Your task to perform on an android device: Open Youtube and go to "Your channel" Image 0: 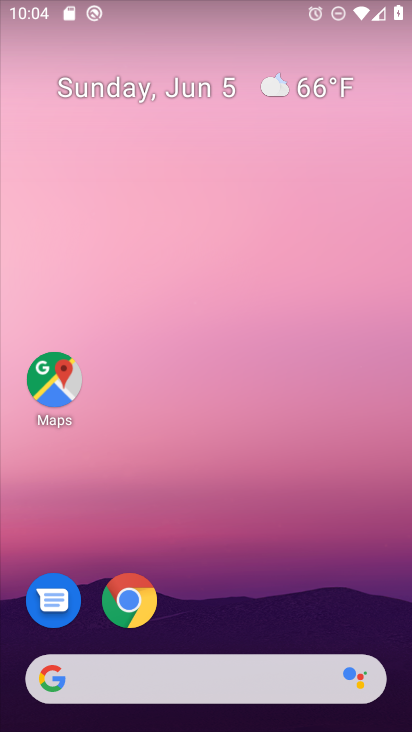
Step 0: drag from (388, 625) to (261, 2)
Your task to perform on an android device: Open Youtube and go to "Your channel" Image 1: 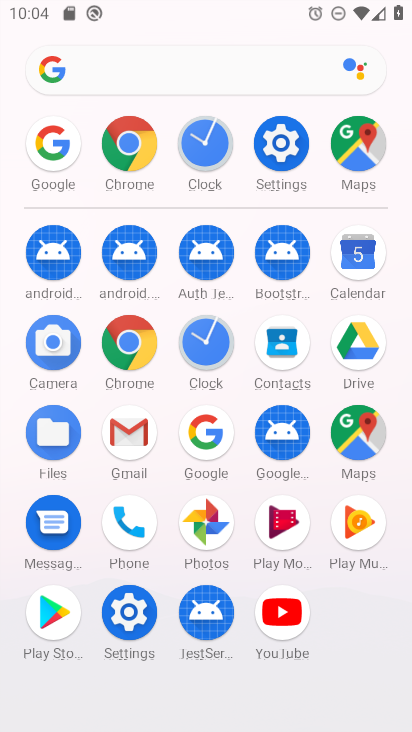
Step 1: click (277, 628)
Your task to perform on an android device: Open Youtube and go to "Your channel" Image 2: 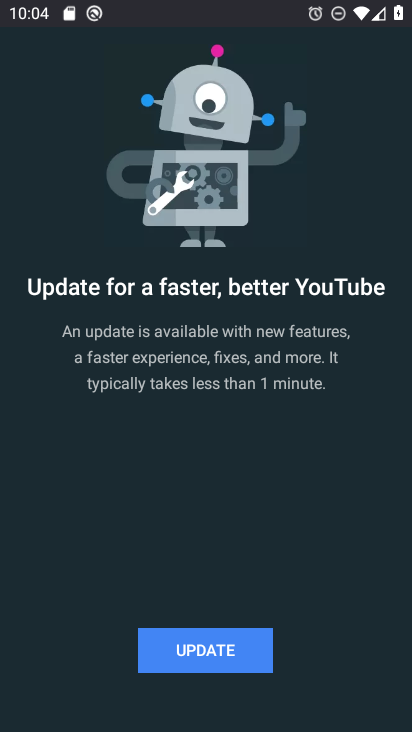
Step 2: click (230, 641)
Your task to perform on an android device: Open Youtube and go to "Your channel" Image 3: 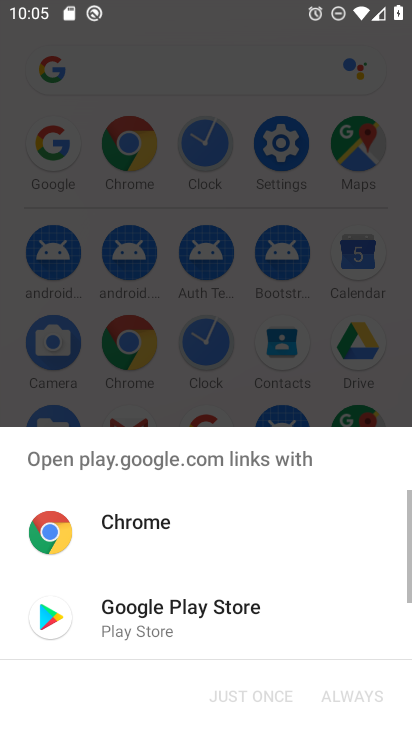
Step 3: click (188, 593)
Your task to perform on an android device: Open Youtube and go to "Your channel" Image 4: 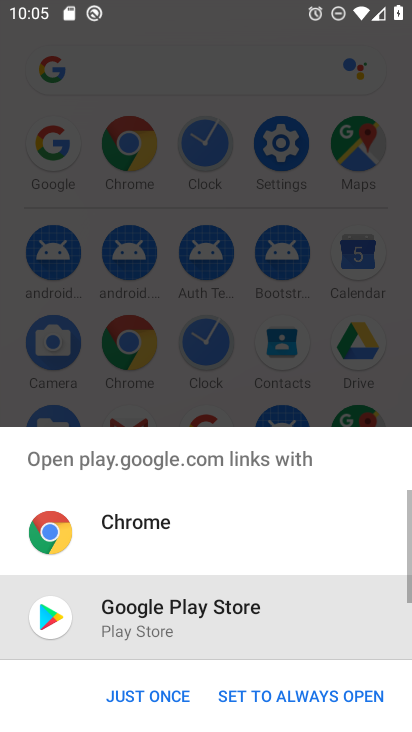
Step 4: click (143, 696)
Your task to perform on an android device: Open Youtube and go to "Your channel" Image 5: 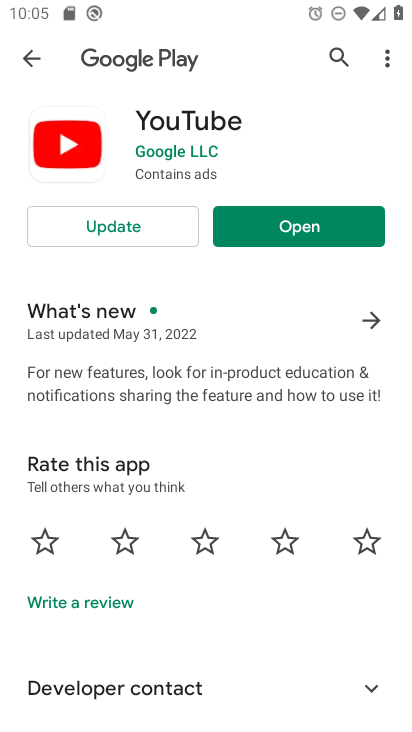
Step 5: click (84, 220)
Your task to perform on an android device: Open Youtube and go to "Your channel" Image 6: 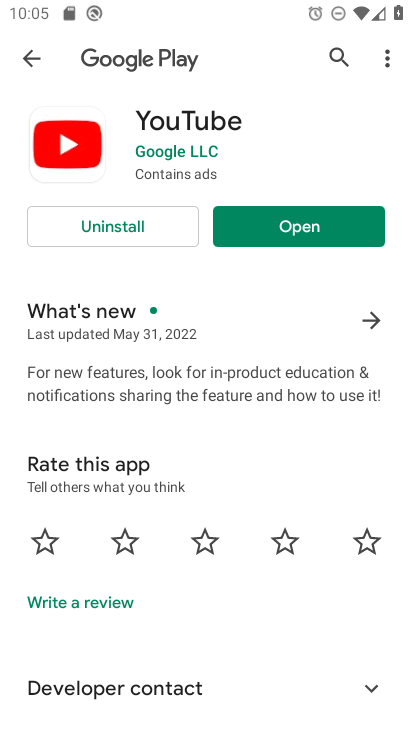
Step 6: click (311, 223)
Your task to perform on an android device: Open Youtube and go to "Your channel" Image 7: 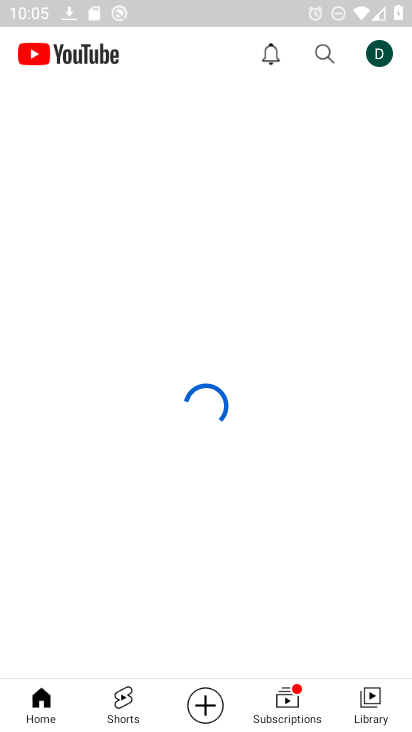
Step 7: click (381, 59)
Your task to perform on an android device: Open Youtube and go to "Your channel" Image 8: 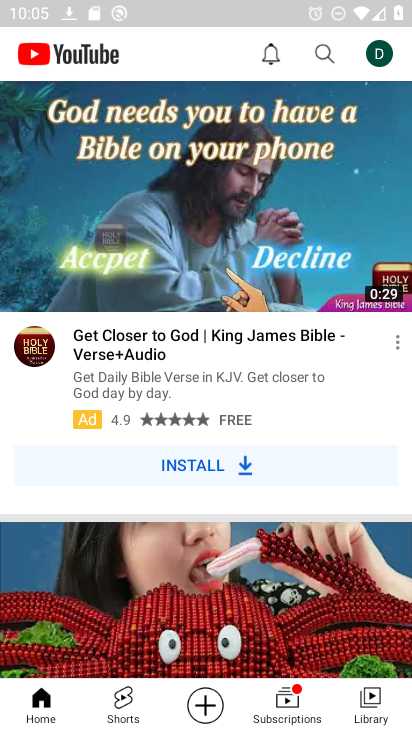
Step 8: click (381, 59)
Your task to perform on an android device: Open Youtube and go to "Your channel" Image 9: 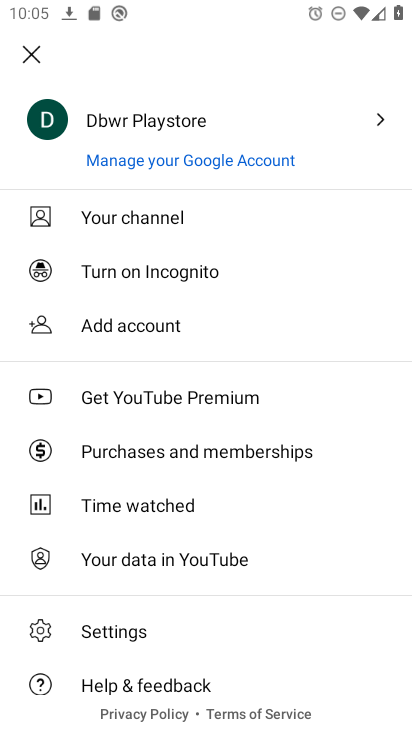
Step 9: click (139, 216)
Your task to perform on an android device: Open Youtube and go to "Your channel" Image 10: 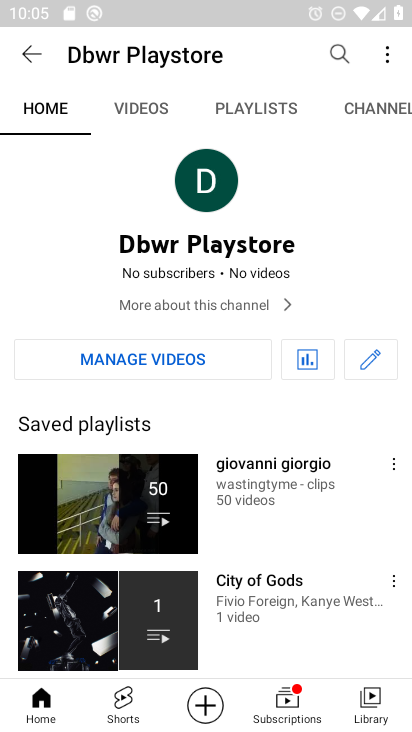
Step 10: task complete